Your task to perform on an android device: set the timer Image 0: 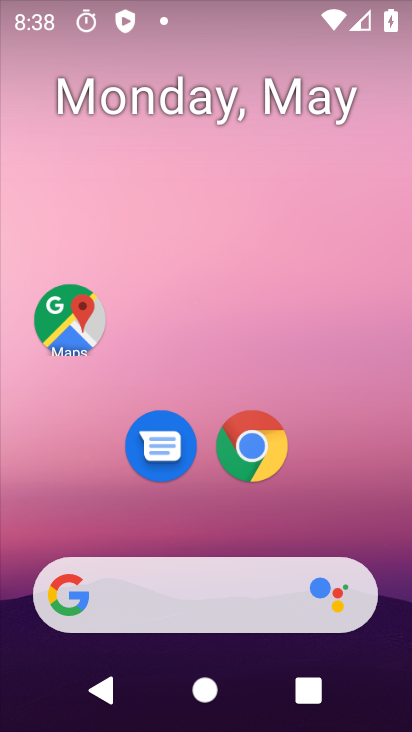
Step 0: drag from (357, 554) to (301, 23)
Your task to perform on an android device: set the timer Image 1: 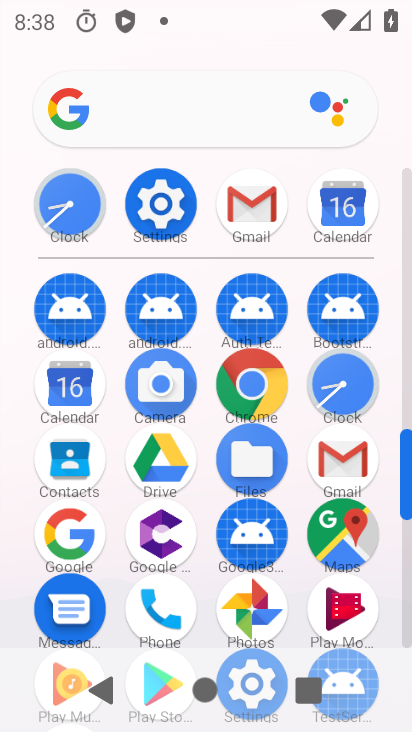
Step 1: click (59, 212)
Your task to perform on an android device: set the timer Image 2: 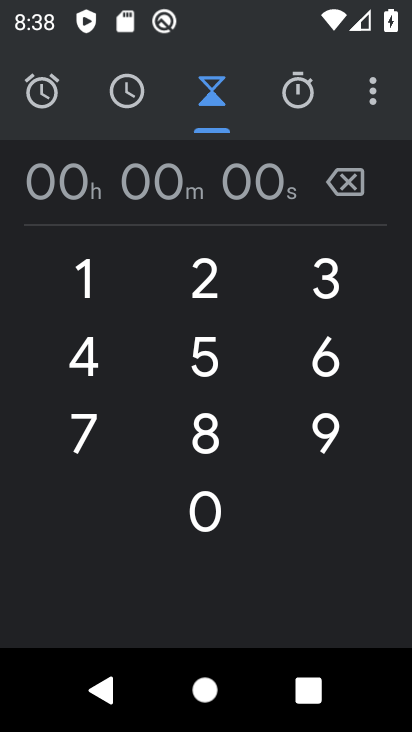
Step 2: click (317, 363)
Your task to perform on an android device: set the timer Image 3: 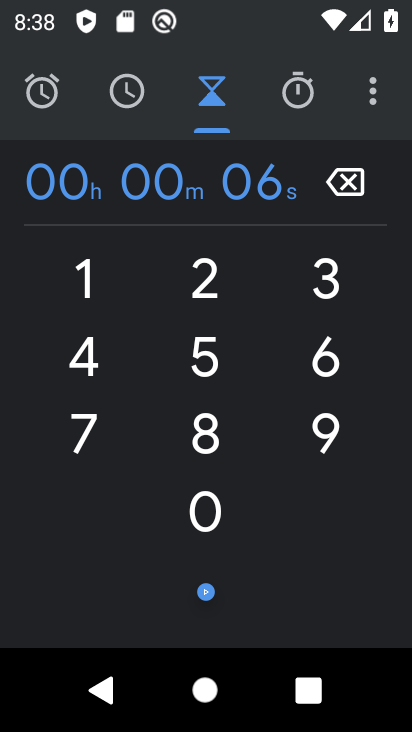
Step 3: click (206, 526)
Your task to perform on an android device: set the timer Image 4: 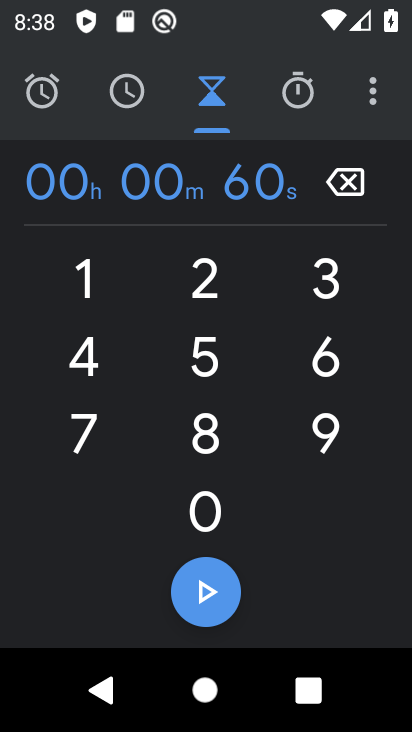
Step 4: click (203, 586)
Your task to perform on an android device: set the timer Image 5: 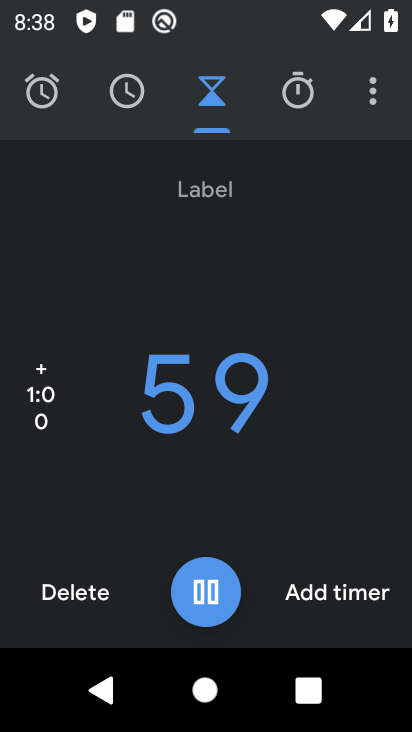
Step 5: task complete